Your task to perform on an android device: set the stopwatch Image 0: 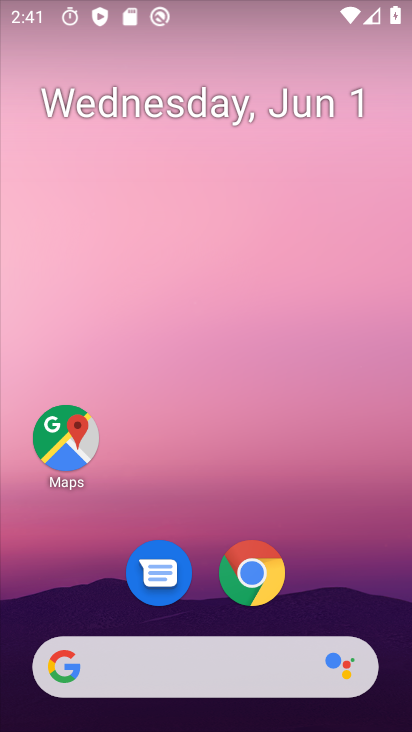
Step 0: drag from (198, 616) to (218, 225)
Your task to perform on an android device: set the stopwatch Image 1: 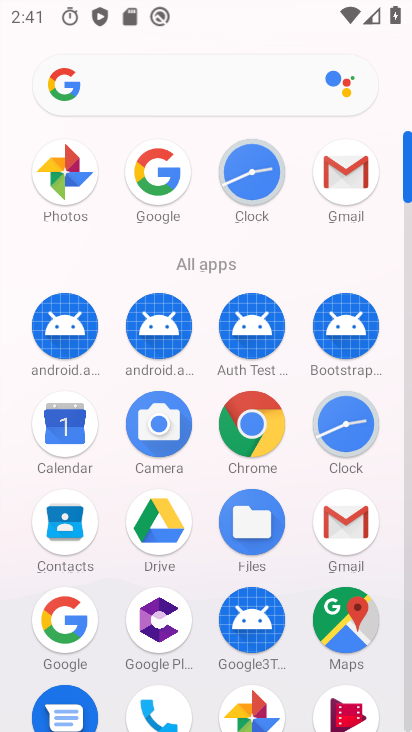
Step 1: click (236, 189)
Your task to perform on an android device: set the stopwatch Image 2: 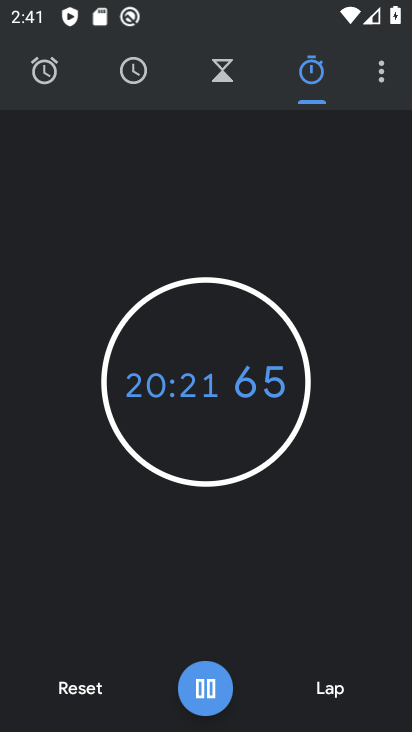
Step 2: task complete